Your task to perform on an android device: Open Google Maps and go to "Timeline" Image 0: 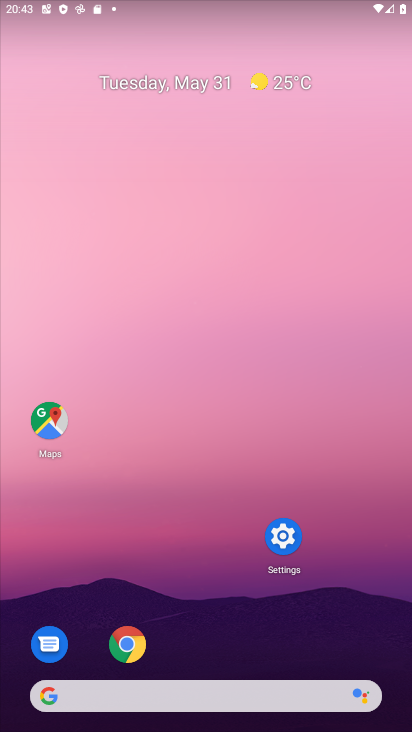
Step 0: press home button
Your task to perform on an android device: Open Google Maps and go to "Timeline" Image 1: 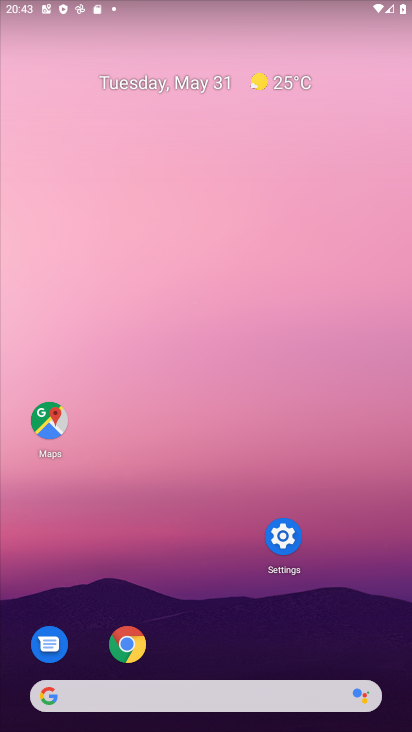
Step 1: drag from (247, 714) to (259, 374)
Your task to perform on an android device: Open Google Maps and go to "Timeline" Image 2: 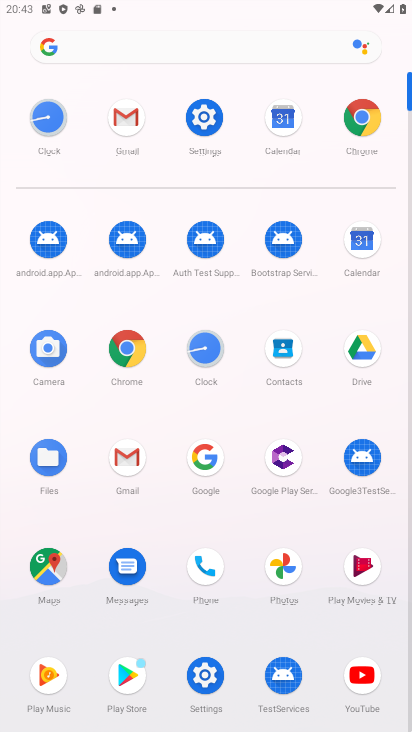
Step 2: click (52, 563)
Your task to perform on an android device: Open Google Maps and go to "Timeline" Image 3: 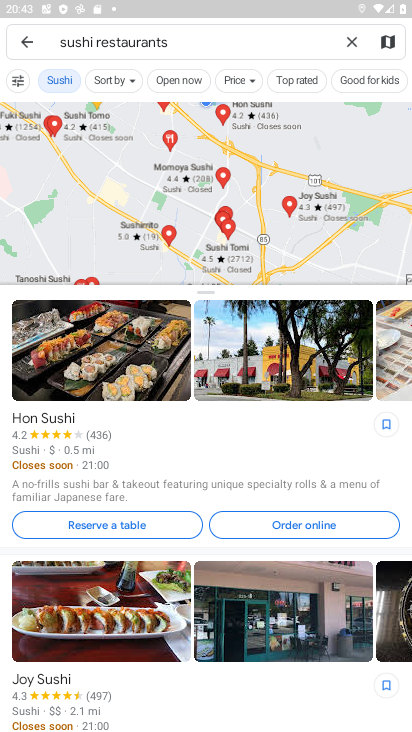
Step 3: click (30, 42)
Your task to perform on an android device: Open Google Maps and go to "Timeline" Image 4: 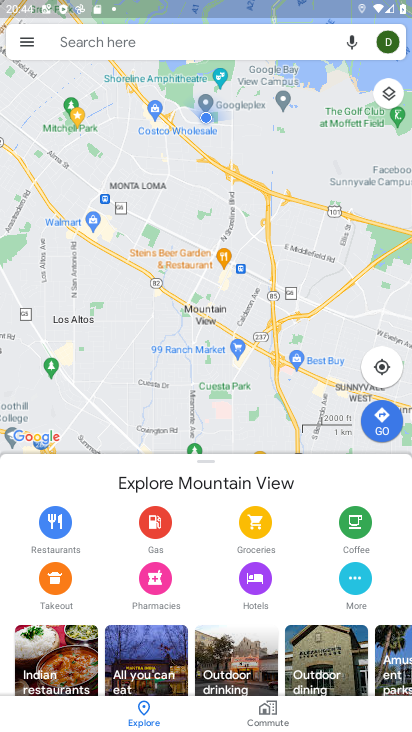
Step 4: click (24, 44)
Your task to perform on an android device: Open Google Maps and go to "Timeline" Image 5: 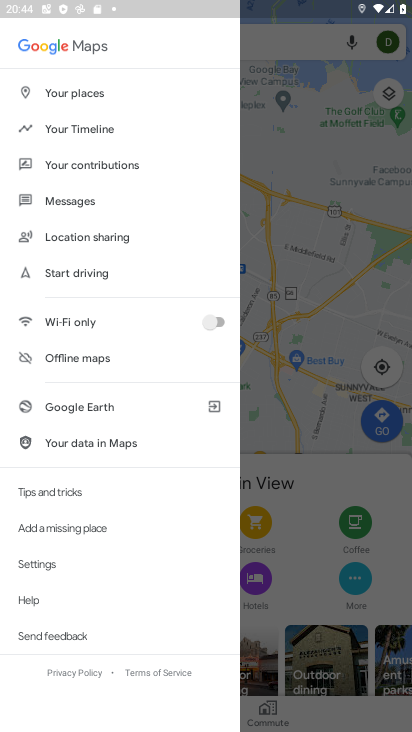
Step 5: click (97, 147)
Your task to perform on an android device: Open Google Maps and go to "Timeline" Image 6: 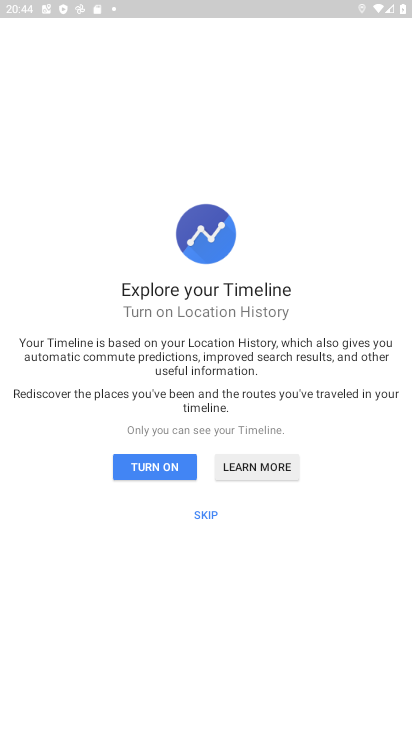
Step 6: click (194, 507)
Your task to perform on an android device: Open Google Maps and go to "Timeline" Image 7: 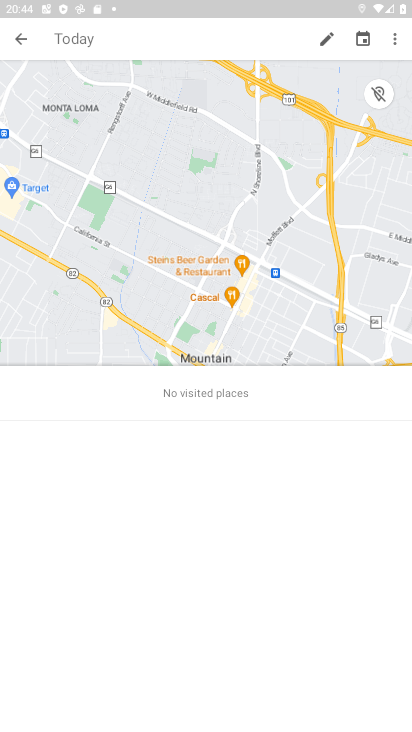
Step 7: task complete